Your task to perform on an android device: turn smart compose on in the gmail app Image 0: 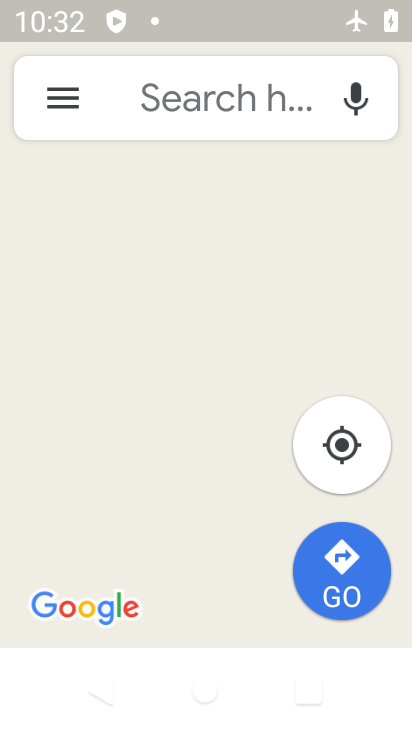
Step 0: press home button
Your task to perform on an android device: turn smart compose on in the gmail app Image 1: 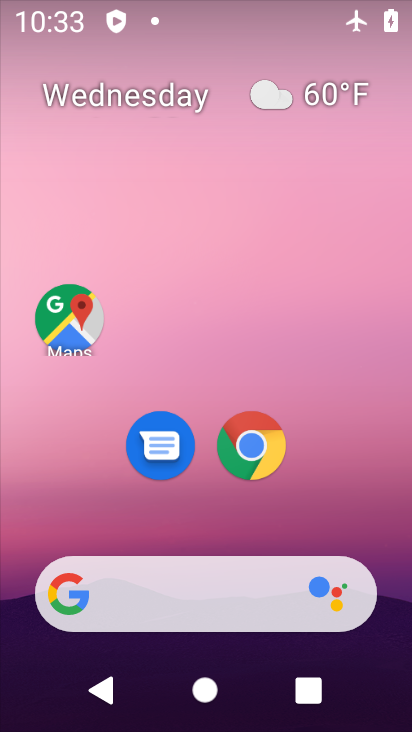
Step 1: drag from (193, 485) to (212, 155)
Your task to perform on an android device: turn smart compose on in the gmail app Image 2: 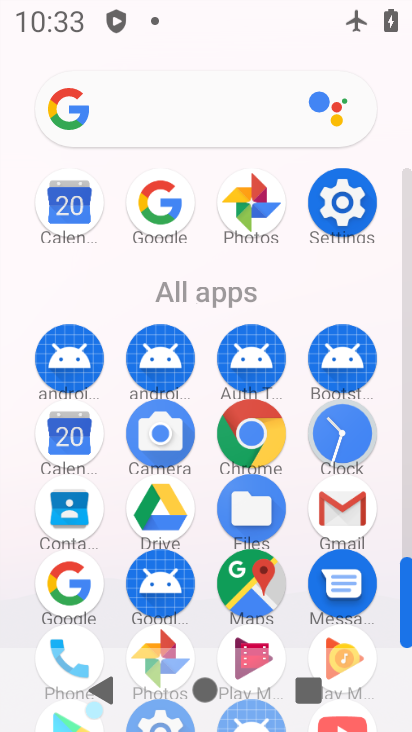
Step 2: click (346, 494)
Your task to perform on an android device: turn smart compose on in the gmail app Image 3: 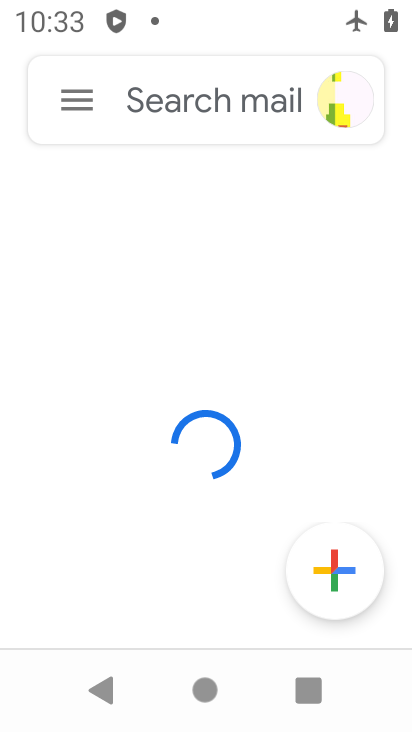
Step 3: click (72, 106)
Your task to perform on an android device: turn smart compose on in the gmail app Image 4: 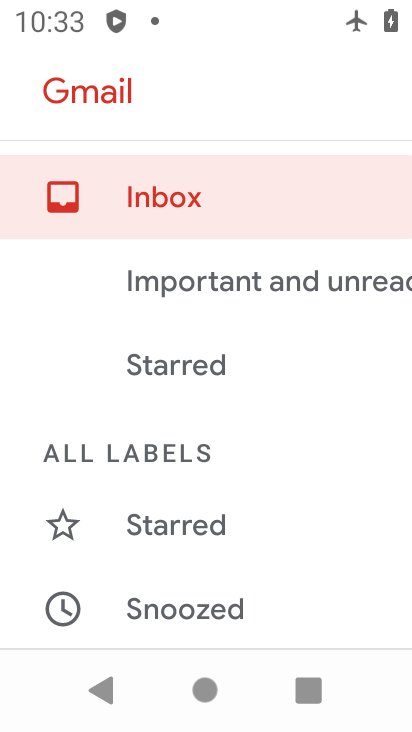
Step 4: click (150, 459)
Your task to perform on an android device: turn smart compose on in the gmail app Image 5: 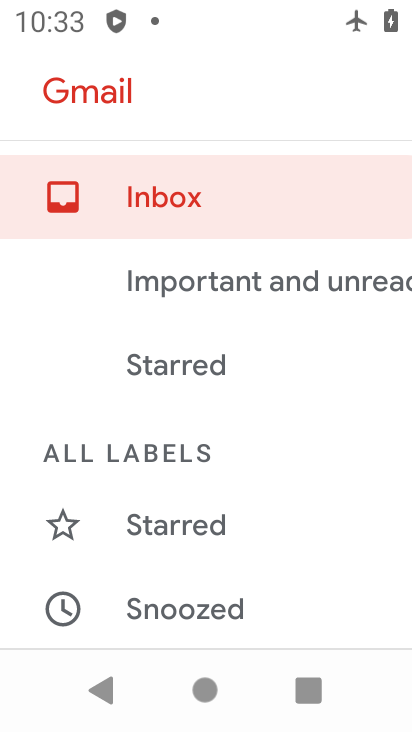
Step 5: drag from (186, 470) to (252, 164)
Your task to perform on an android device: turn smart compose on in the gmail app Image 6: 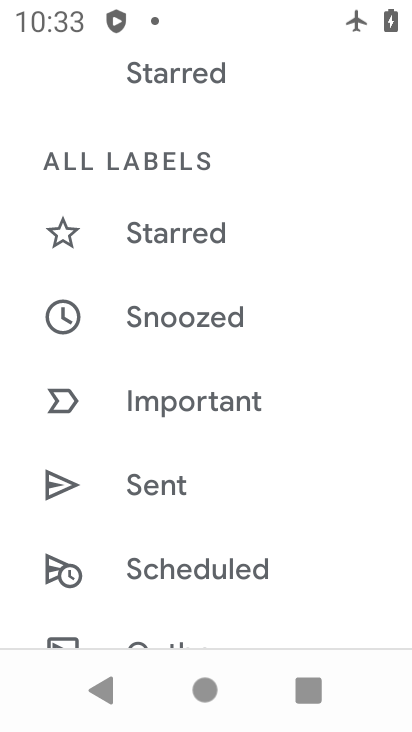
Step 6: drag from (247, 450) to (291, 203)
Your task to perform on an android device: turn smart compose on in the gmail app Image 7: 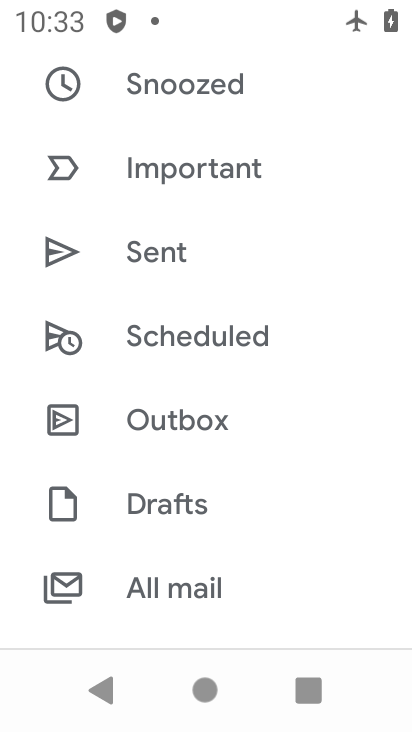
Step 7: drag from (221, 565) to (275, 272)
Your task to perform on an android device: turn smart compose on in the gmail app Image 8: 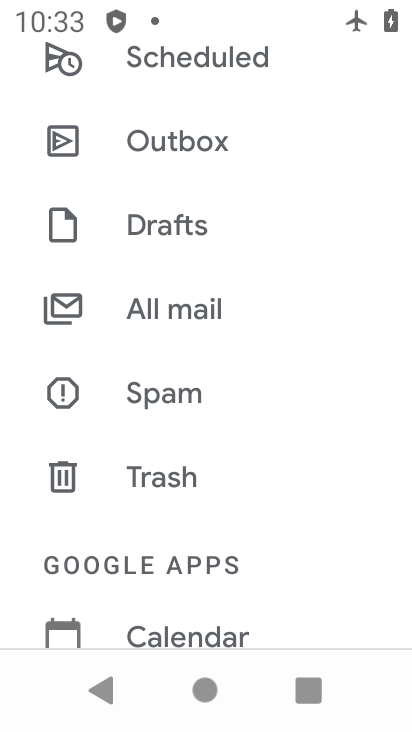
Step 8: drag from (213, 536) to (254, 227)
Your task to perform on an android device: turn smart compose on in the gmail app Image 9: 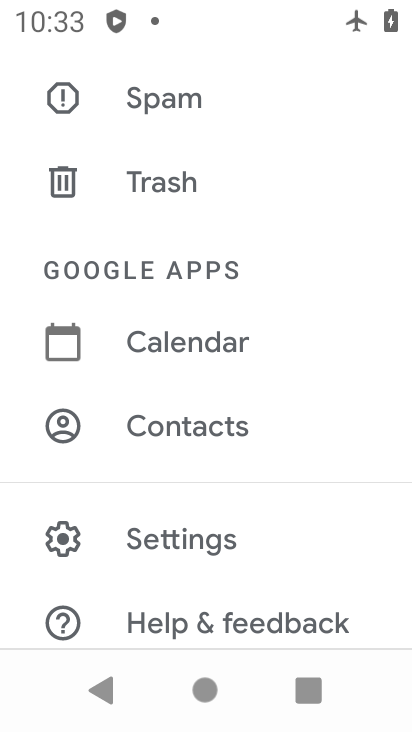
Step 9: click (193, 531)
Your task to perform on an android device: turn smart compose on in the gmail app Image 10: 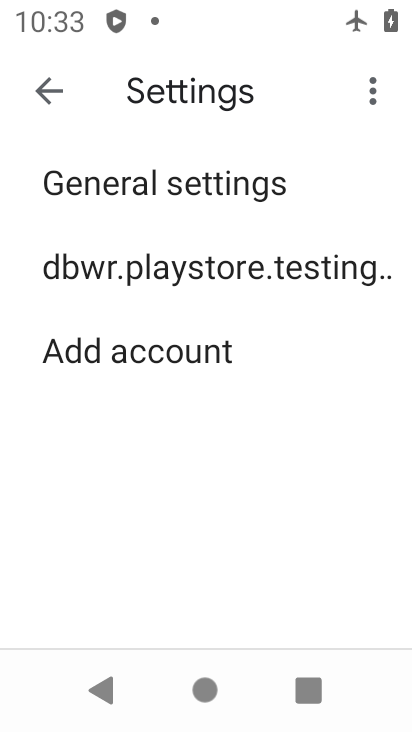
Step 10: click (196, 263)
Your task to perform on an android device: turn smart compose on in the gmail app Image 11: 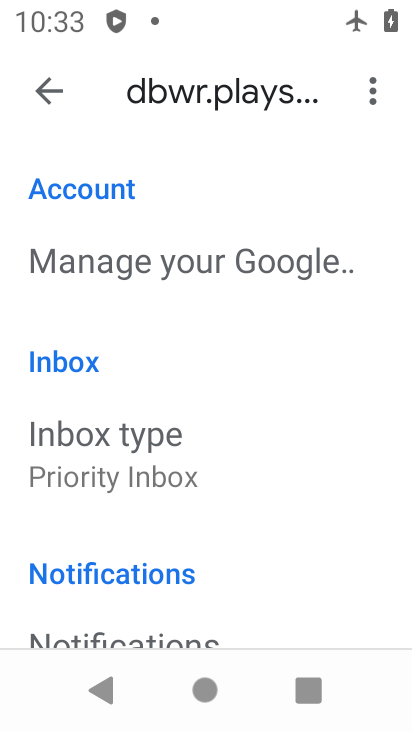
Step 11: task complete